Your task to perform on an android device: change notification settings in the gmail app Image 0: 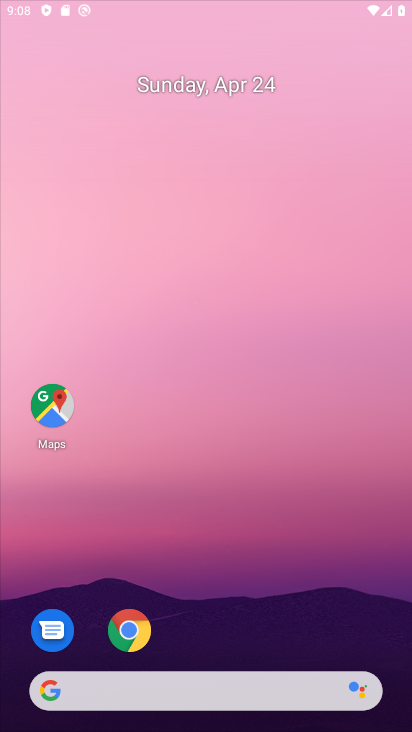
Step 0: drag from (222, 584) to (210, 265)
Your task to perform on an android device: change notification settings in the gmail app Image 1: 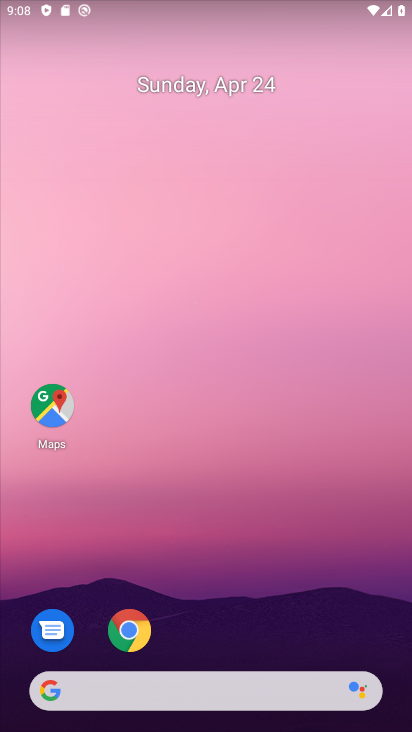
Step 1: drag from (273, 592) to (335, 173)
Your task to perform on an android device: change notification settings in the gmail app Image 2: 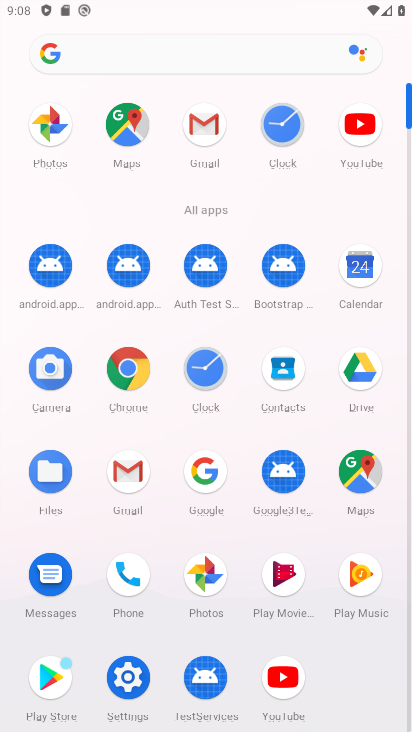
Step 2: click (208, 144)
Your task to perform on an android device: change notification settings in the gmail app Image 3: 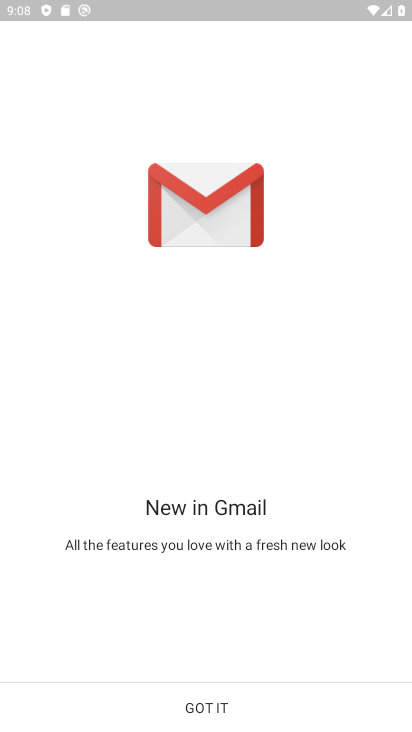
Step 3: click (225, 705)
Your task to perform on an android device: change notification settings in the gmail app Image 4: 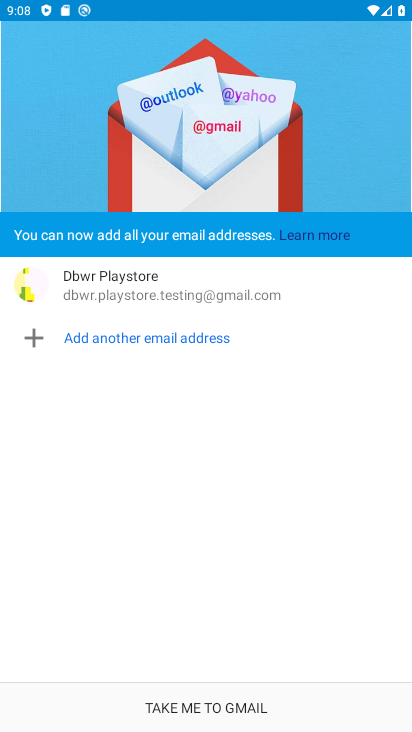
Step 4: click (194, 704)
Your task to perform on an android device: change notification settings in the gmail app Image 5: 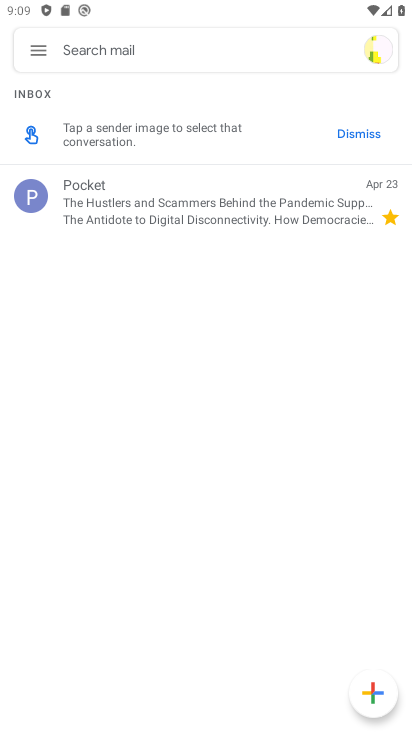
Step 5: click (34, 55)
Your task to perform on an android device: change notification settings in the gmail app Image 6: 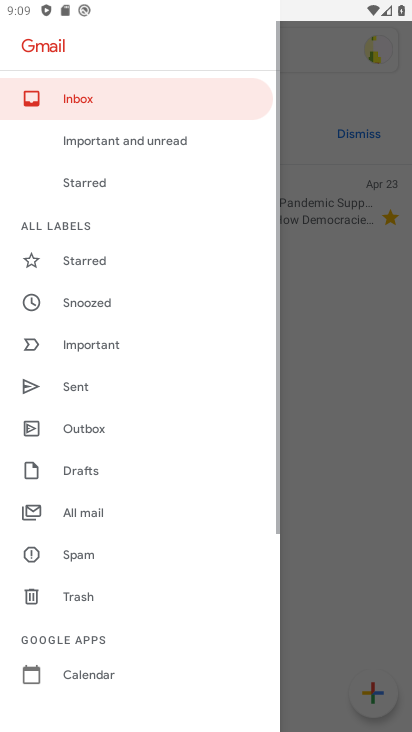
Step 6: drag from (101, 594) to (161, 91)
Your task to perform on an android device: change notification settings in the gmail app Image 7: 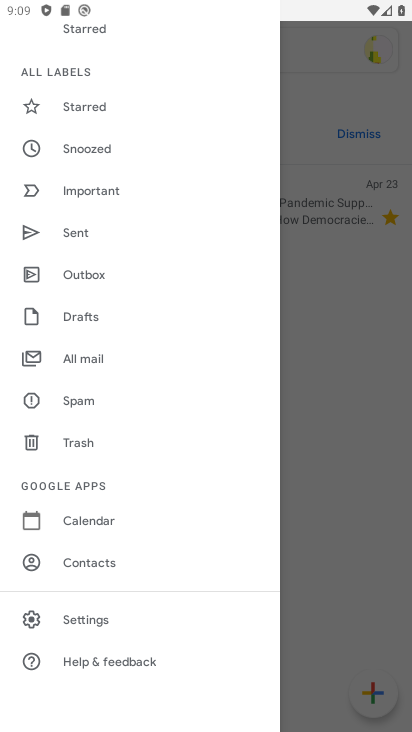
Step 7: click (97, 624)
Your task to perform on an android device: change notification settings in the gmail app Image 8: 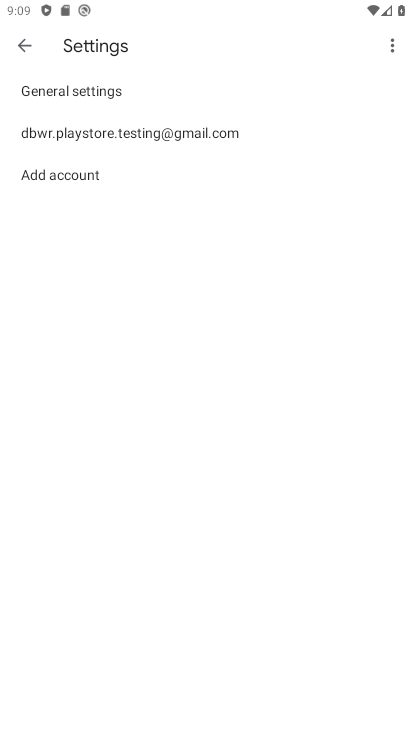
Step 8: click (149, 81)
Your task to perform on an android device: change notification settings in the gmail app Image 9: 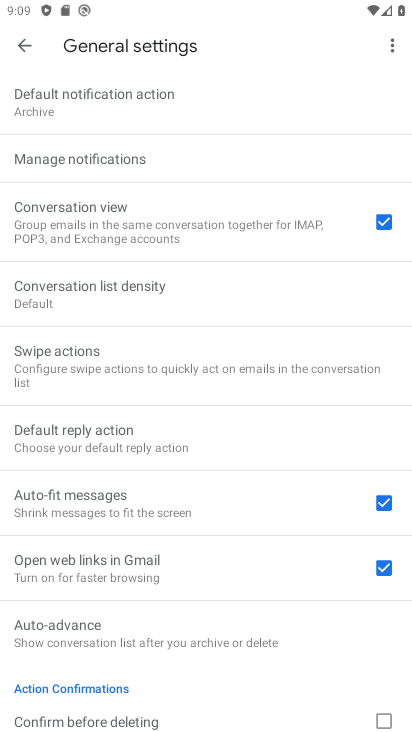
Step 9: click (145, 172)
Your task to perform on an android device: change notification settings in the gmail app Image 10: 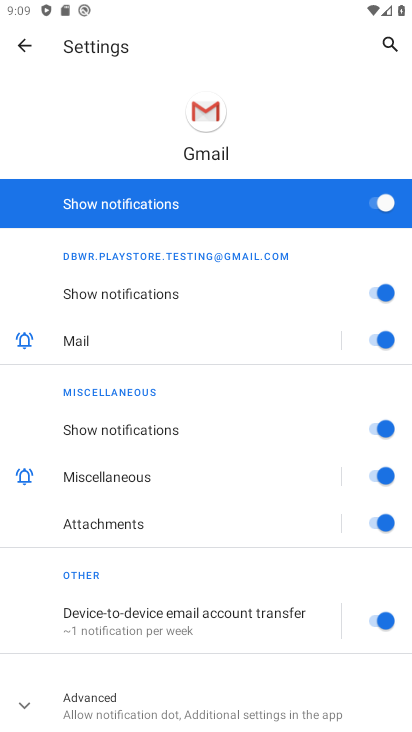
Step 10: click (379, 205)
Your task to perform on an android device: change notification settings in the gmail app Image 11: 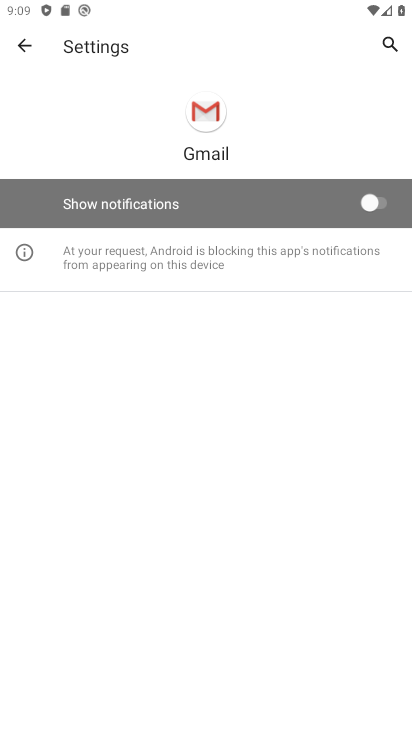
Step 11: task complete